Your task to perform on an android device: Open Youtube and go to the subscriptions tab Image 0: 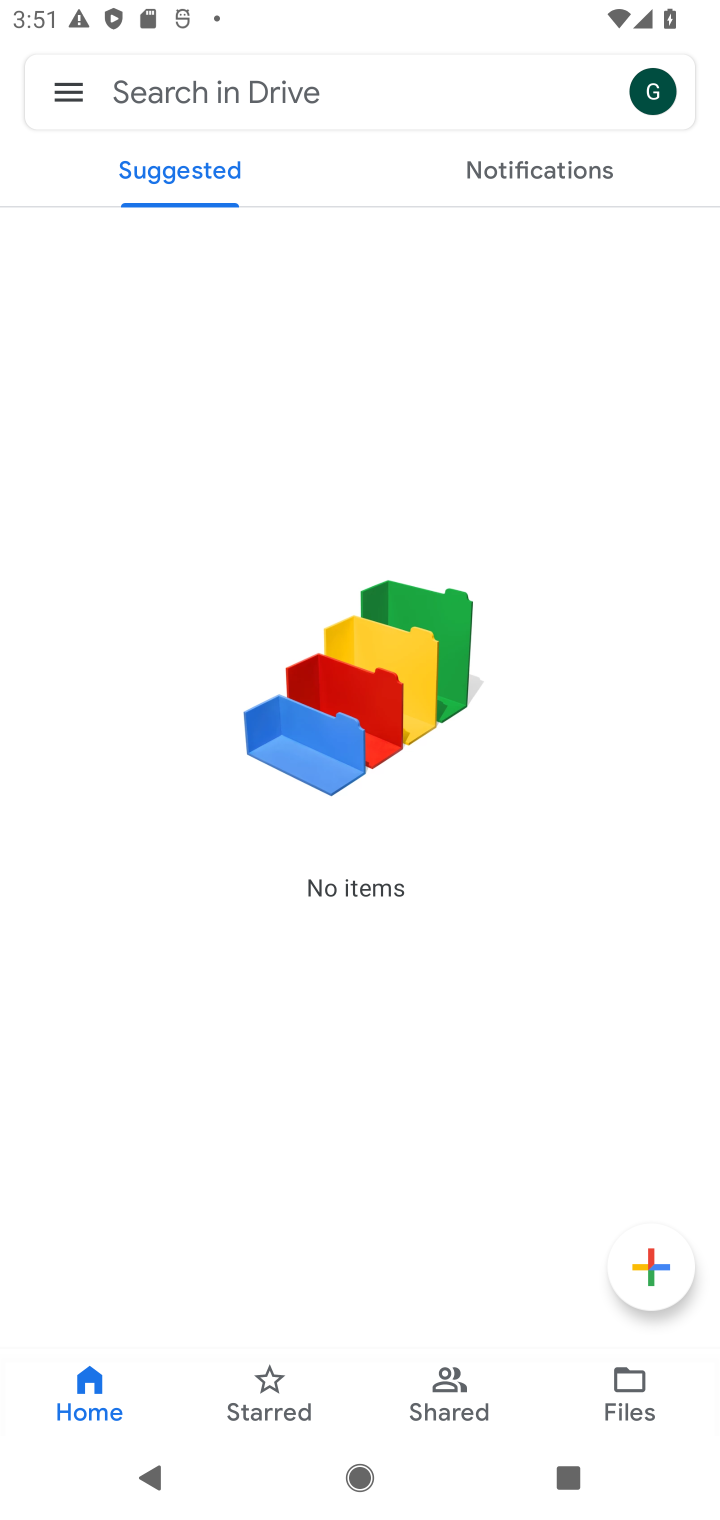
Step 0: press home button
Your task to perform on an android device: Open Youtube and go to the subscriptions tab Image 1: 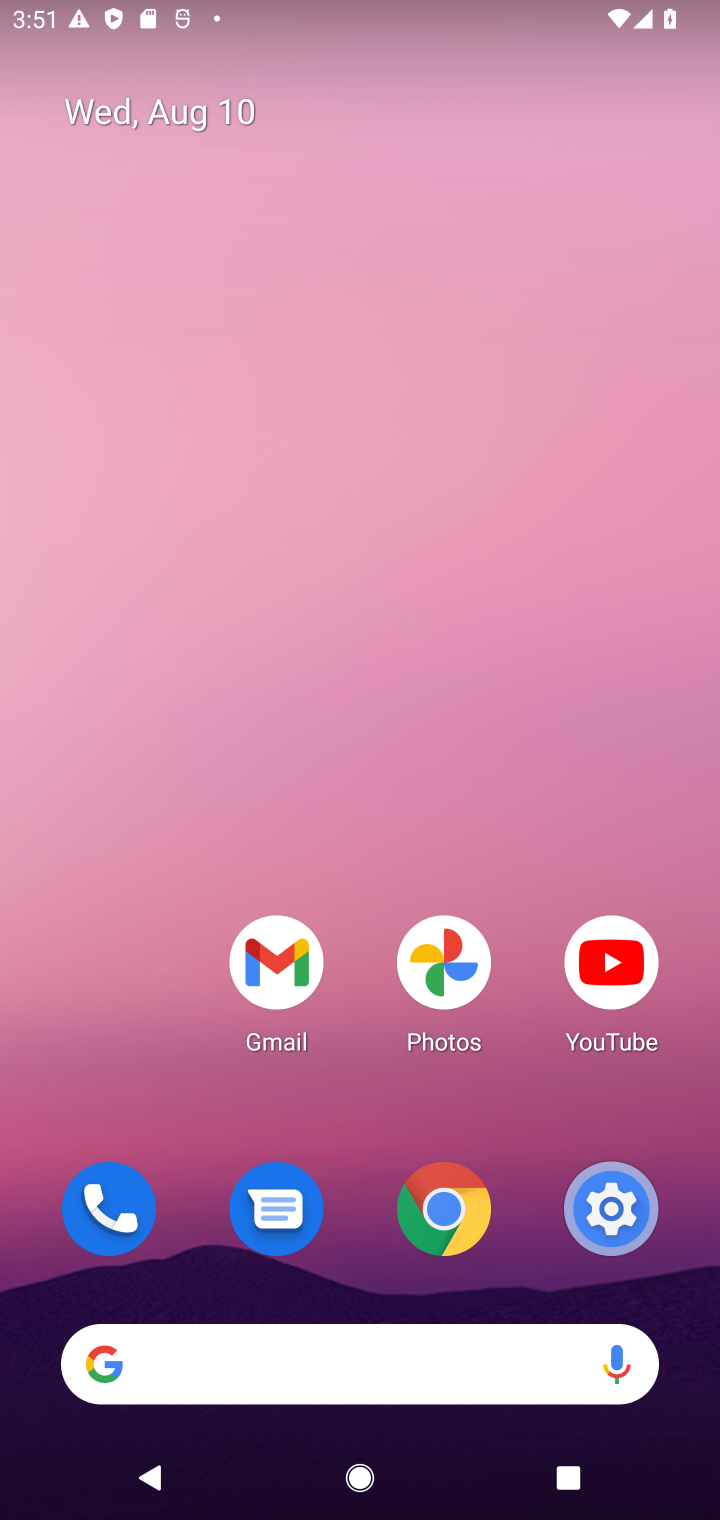
Step 1: click (627, 994)
Your task to perform on an android device: Open Youtube and go to the subscriptions tab Image 2: 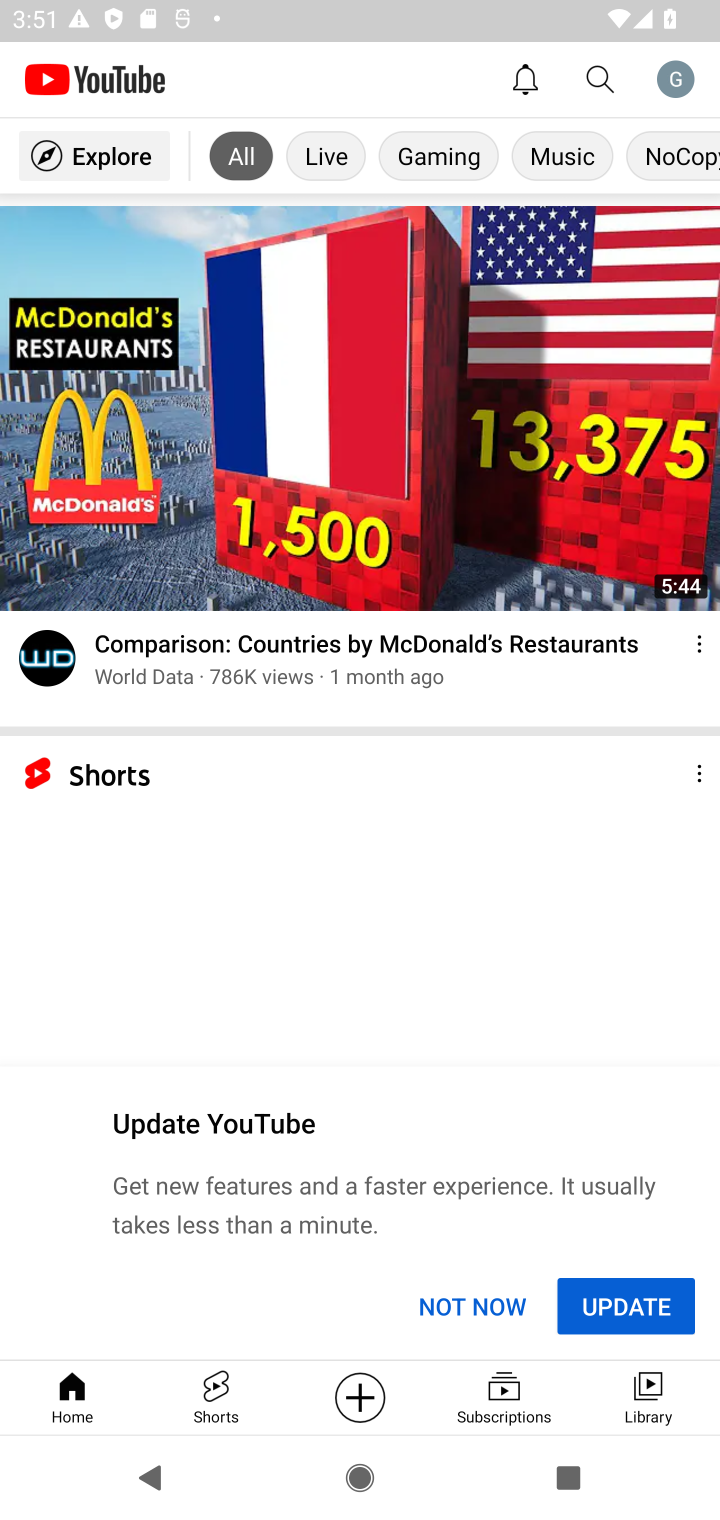
Step 2: click (516, 1389)
Your task to perform on an android device: Open Youtube and go to the subscriptions tab Image 3: 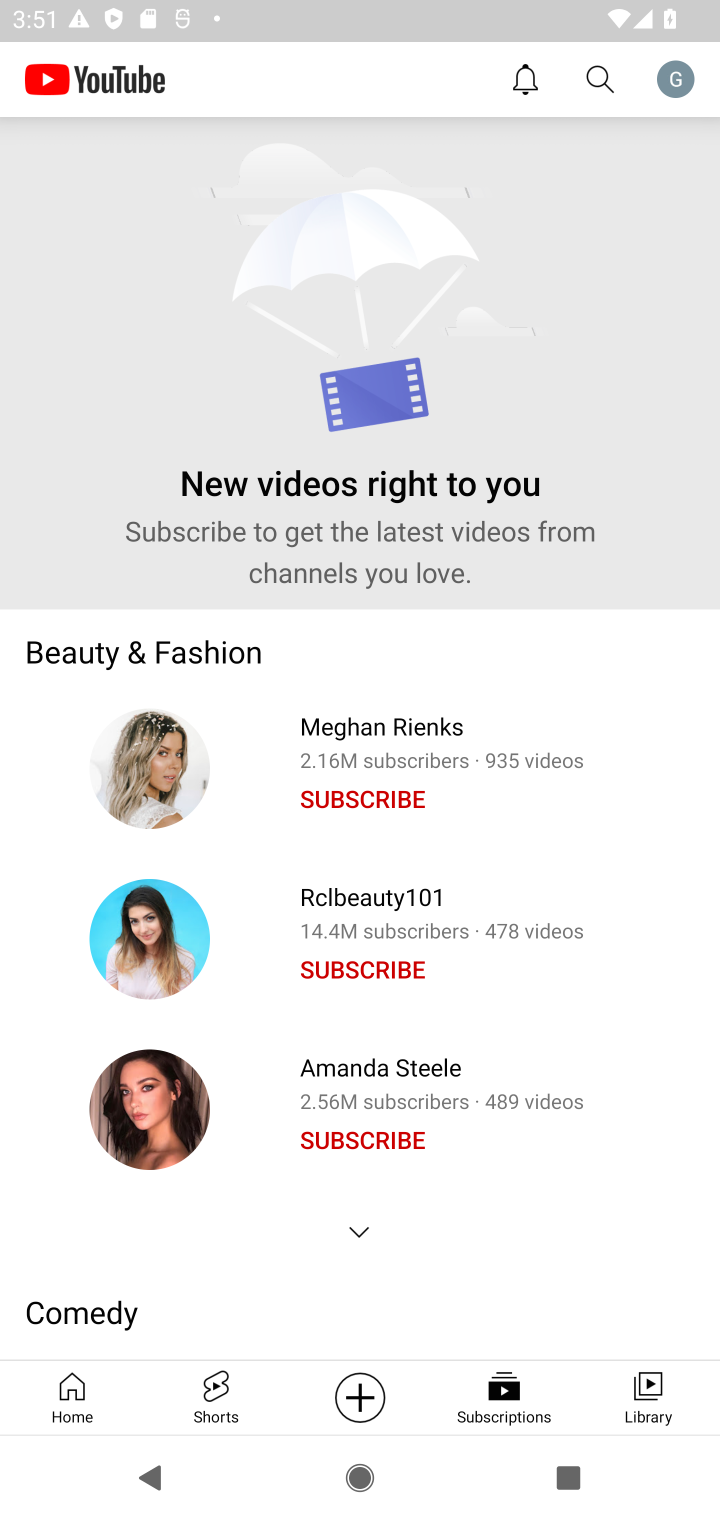
Step 3: task complete